Your task to perform on an android device: open sync settings in chrome Image 0: 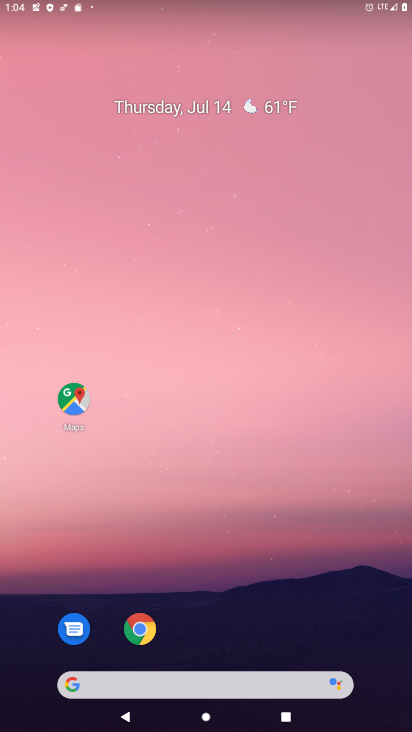
Step 0: click (140, 622)
Your task to perform on an android device: open sync settings in chrome Image 1: 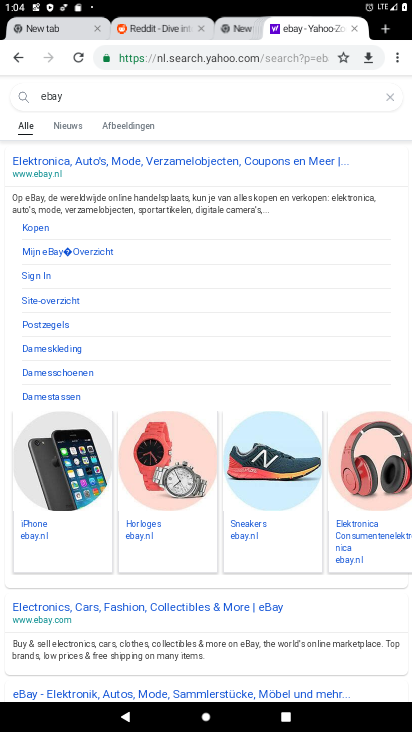
Step 1: click (399, 56)
Your task to perform on an android device: open sync settings in chrome Image 2: 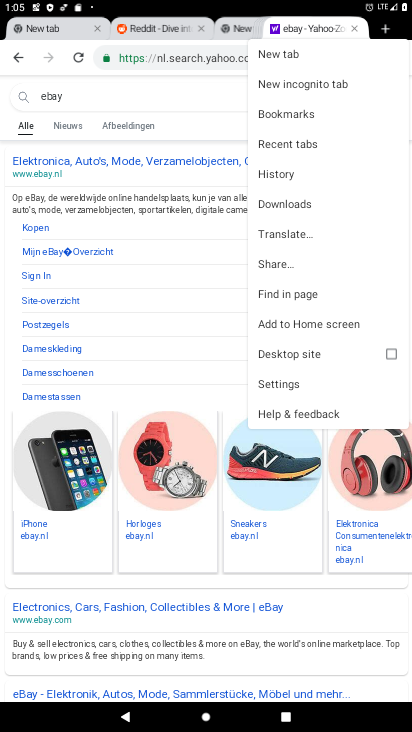
Step 2: click (285, 377)
Your task to perform on an android device: open sync settings in chrome Image 3: 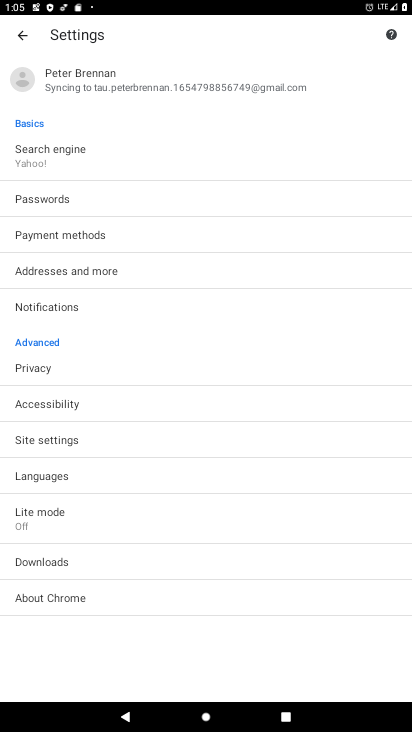
Step 3: click (60, 77)
Your task to perform on an android device: open sync settings in chrome Image 4: 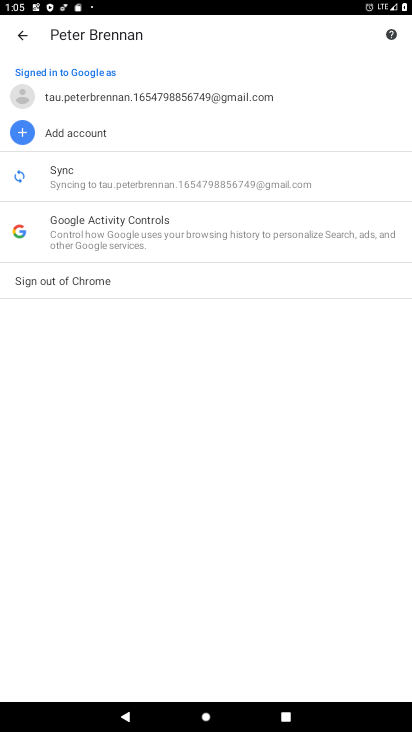
Step 4: click (75, 165)
Your task to perform on an android device: open sync settings in chrome Image 5: 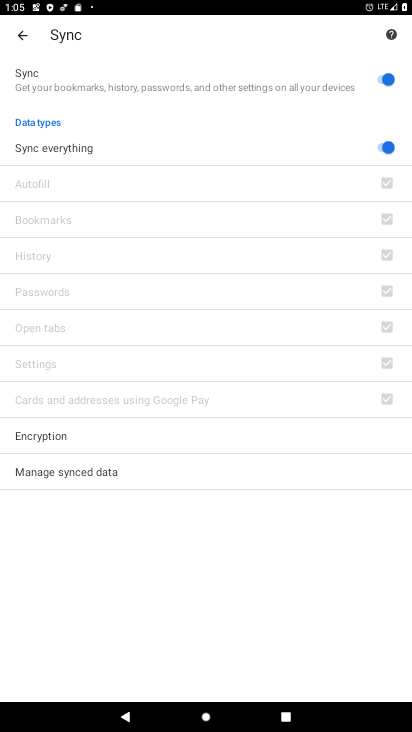
Step 5: task complete